Your task to perform on an android device: install app "Life360: Find Family & Friends" Image 0: 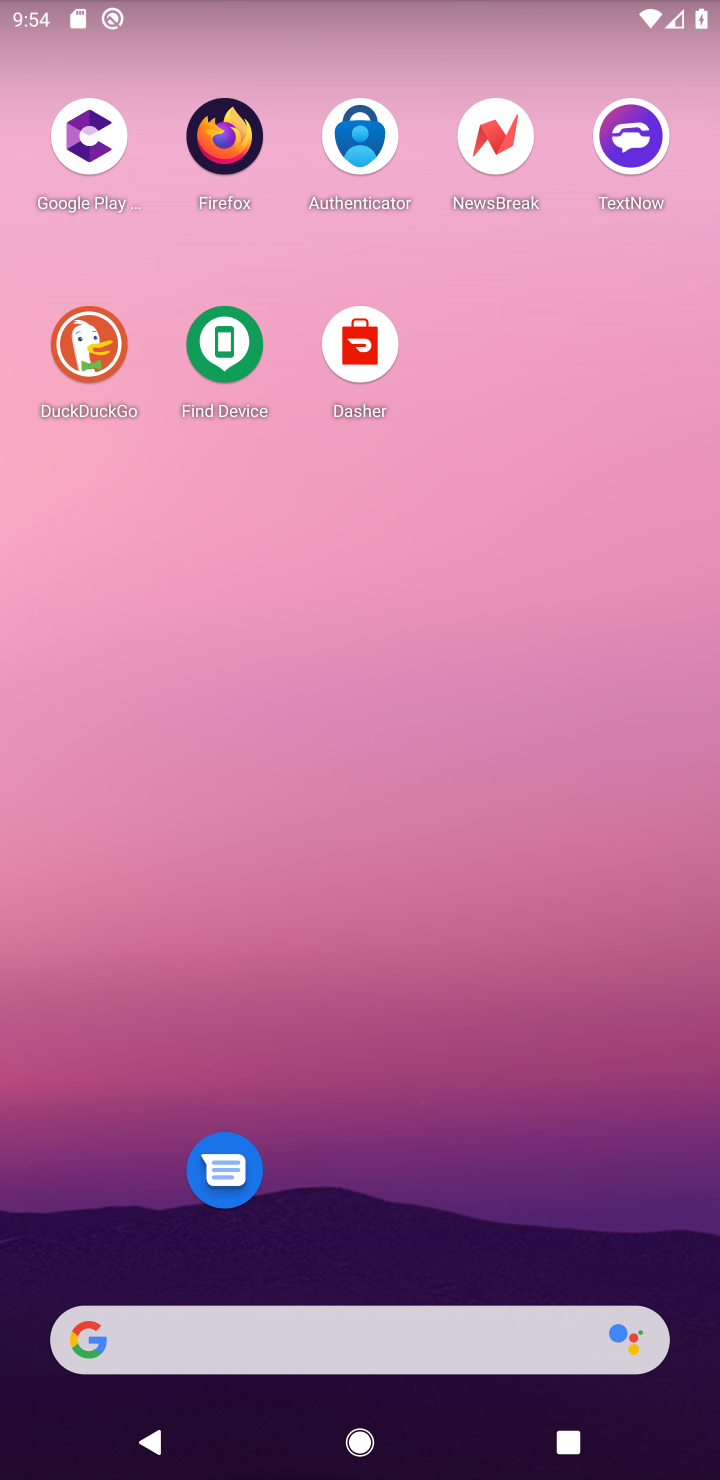
Step 0: drag from (415, 1272) to (362, 108)
Your task to perform on an android device: install app "Life360: Find Family & Friends" Image 1: 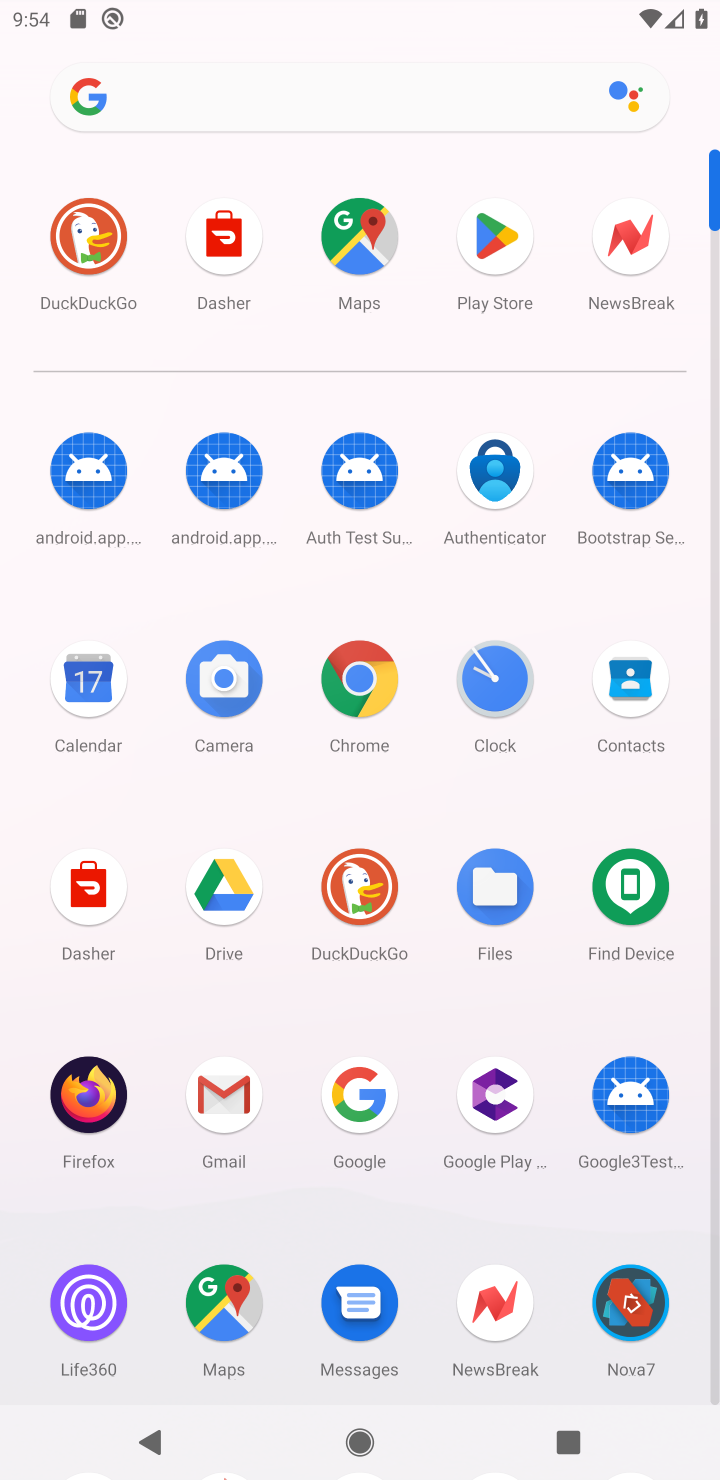
Step 1: click (509, 241)
Your task to perform on an android device: install app "Life360: Find Family & Friends" Image 2: 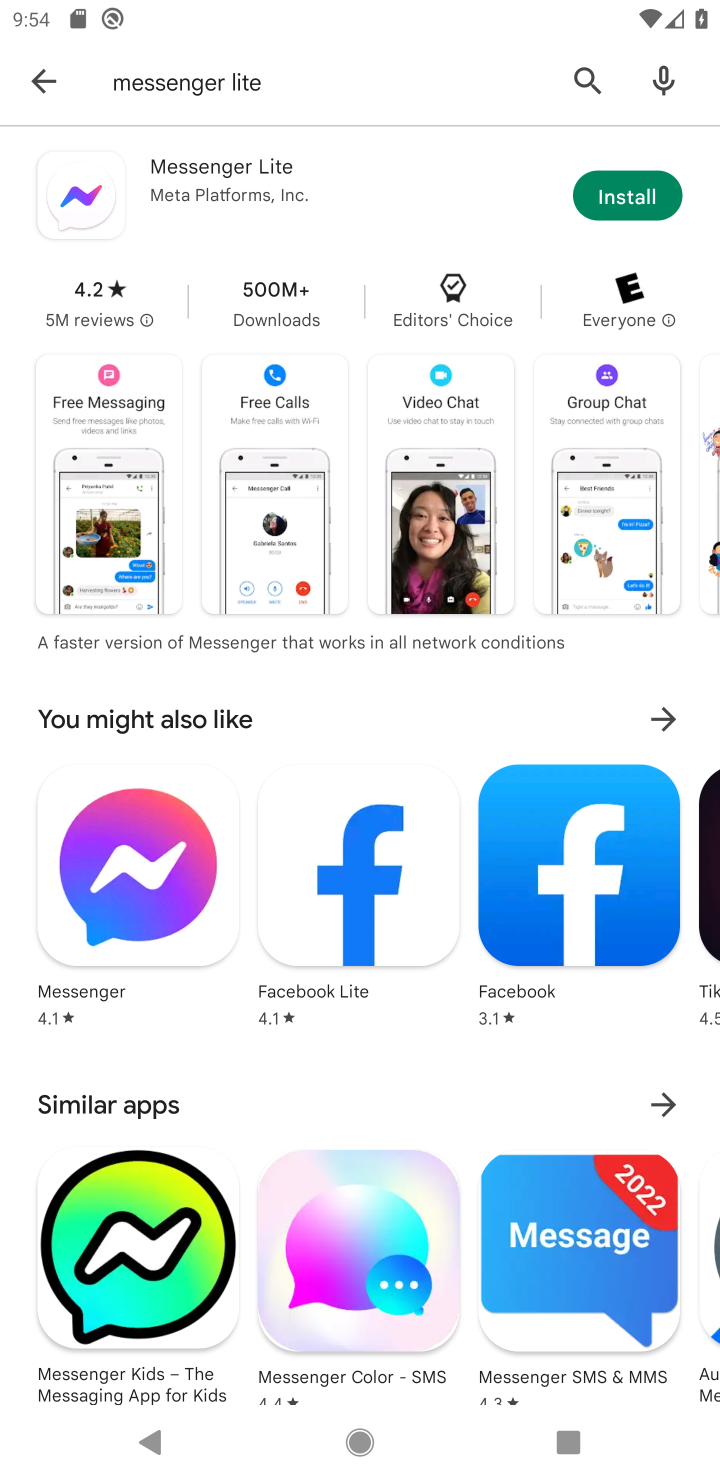
Step 2: click (17, 71)
Your task to perform on an android device: install app "Life360: Find Family & Friends" Image 3: 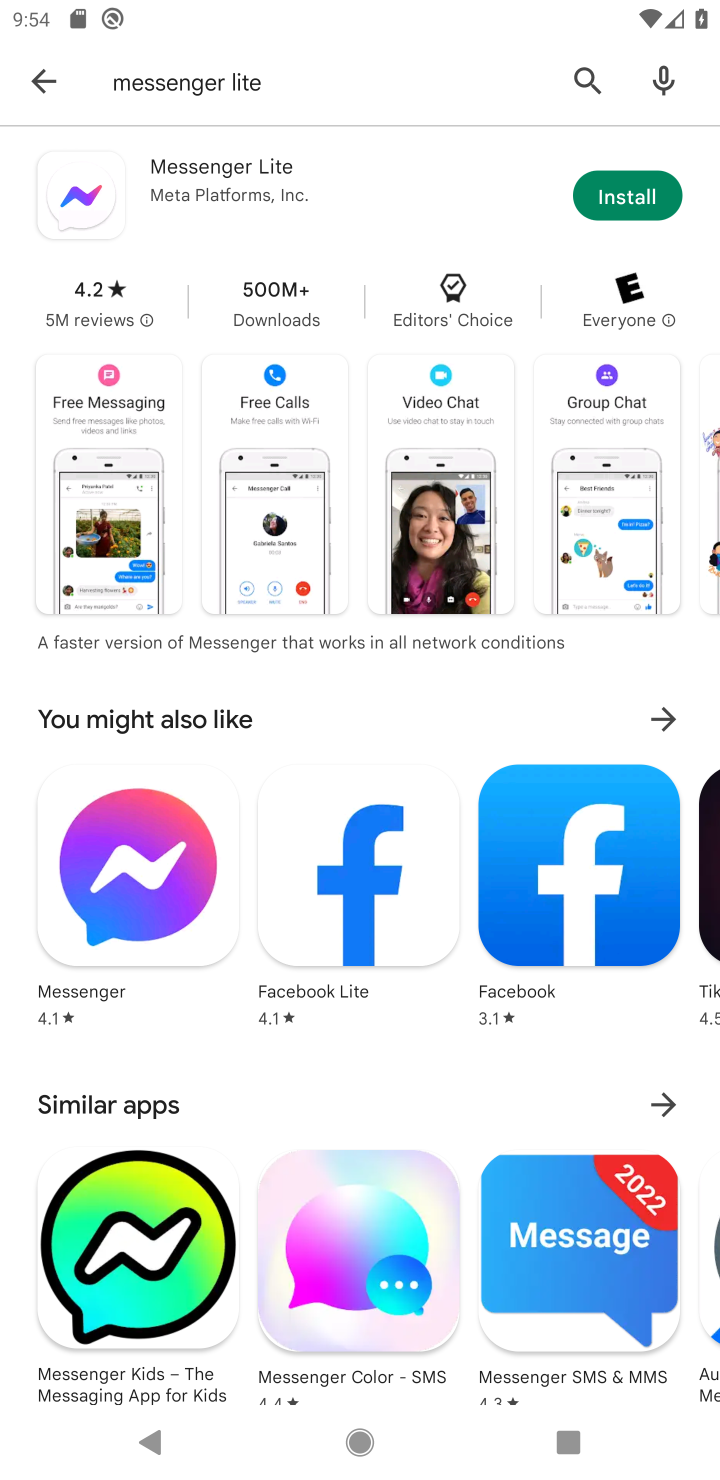
Step 3: click (18, 93)
Your task to perform on an android device: install app "Life360: Find Family & Friends" Image 4: 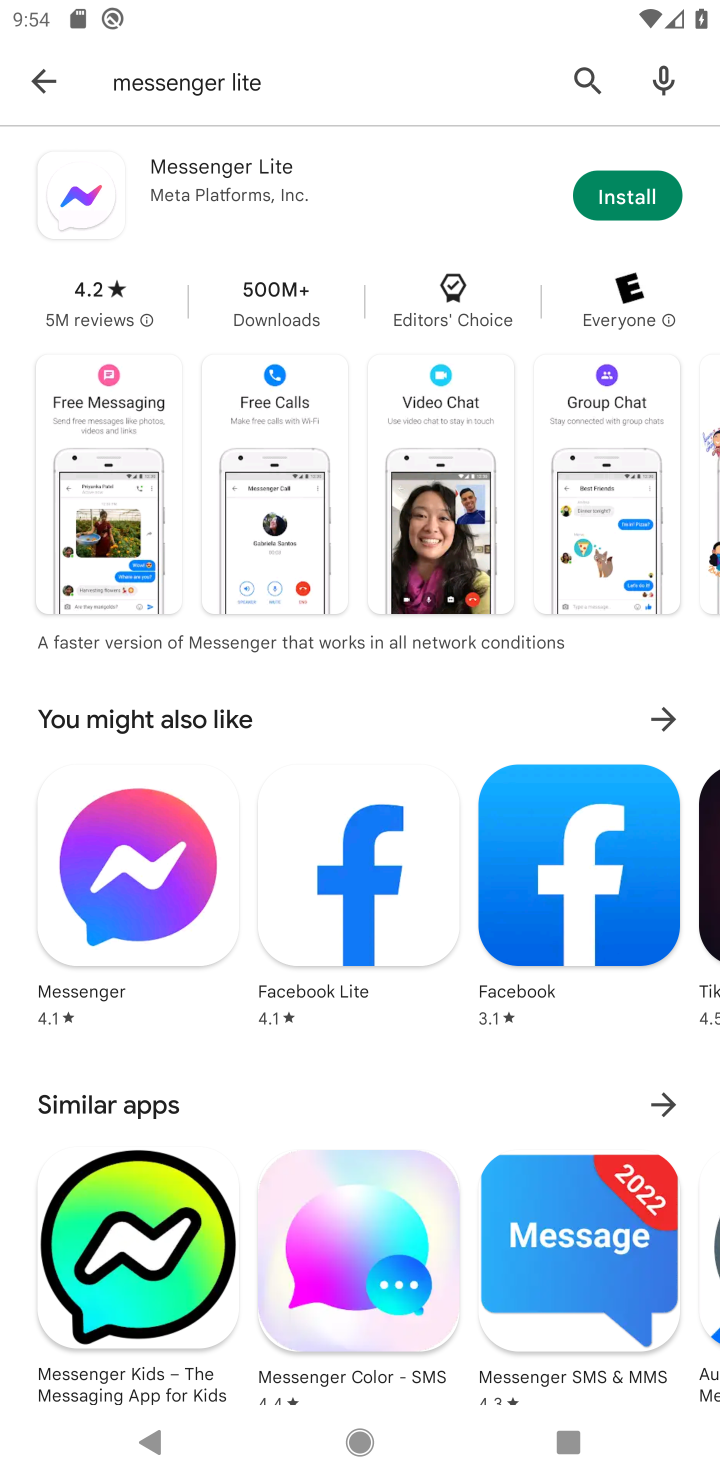
Step 4: click (51, 80)
Your task to perform on an android device: install app "Life360: Find Family & Friends" Image 5: 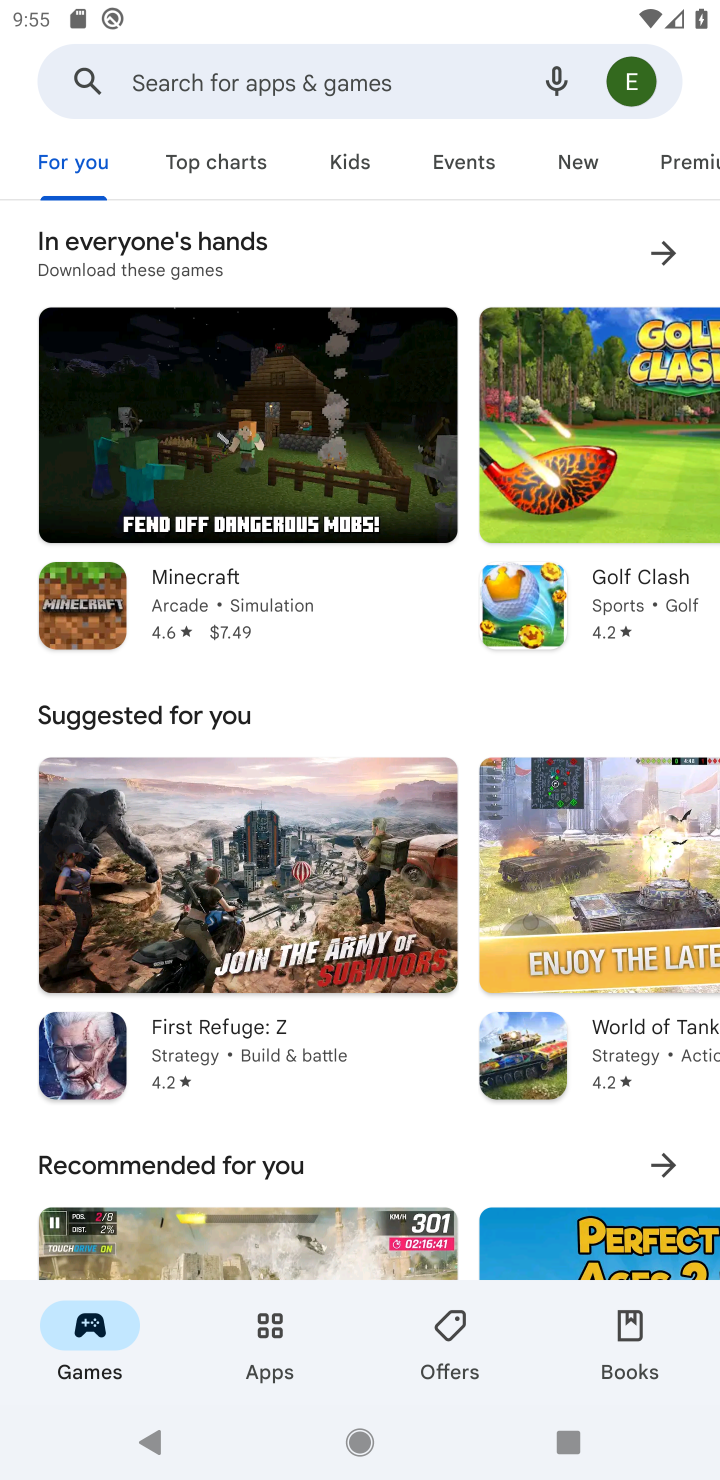
Step 5: click (172, 89)
Your task to perform on an android device: install app "Life360: Find Family & Friends" Image 6: 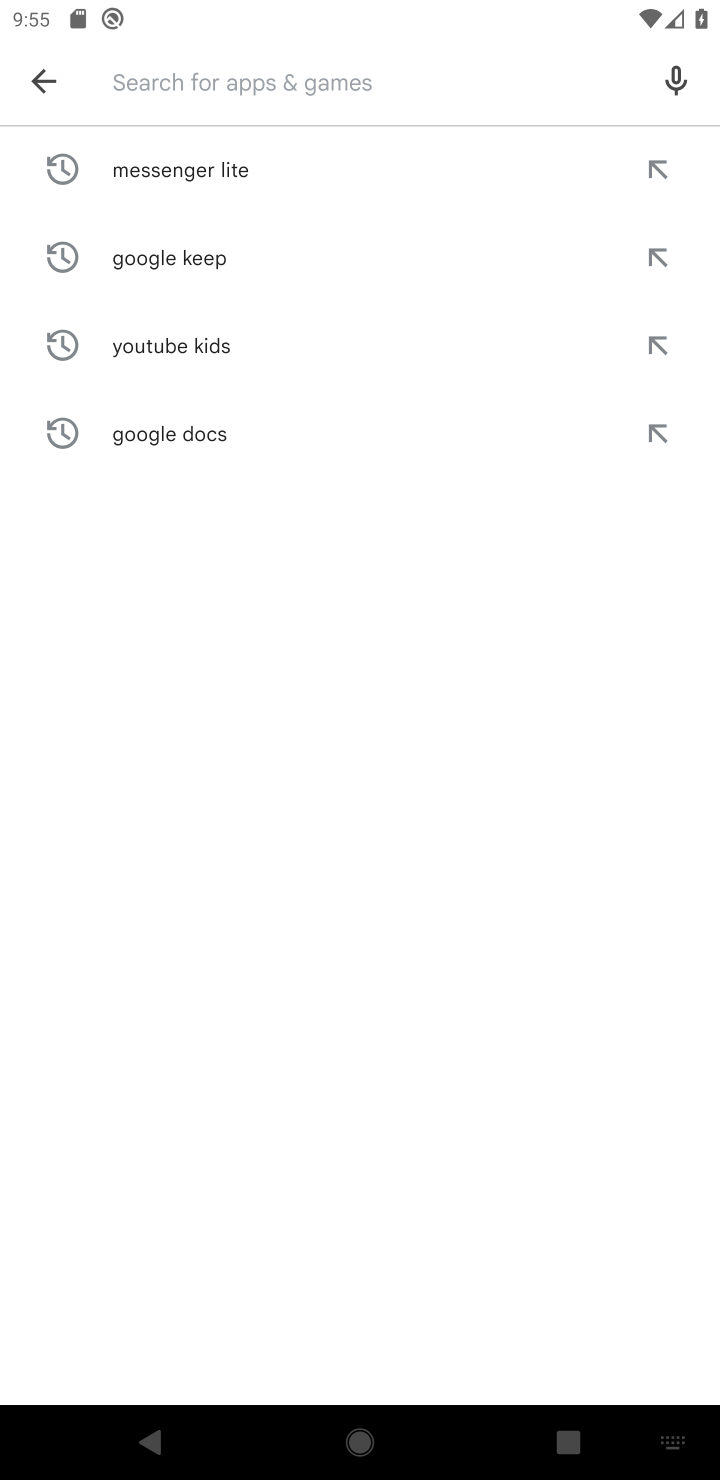
Step 6: type "Life360: Find Family & Friends"
Your task to perform on an android device: install app "Life360: Find Family & Friends" Image 7: 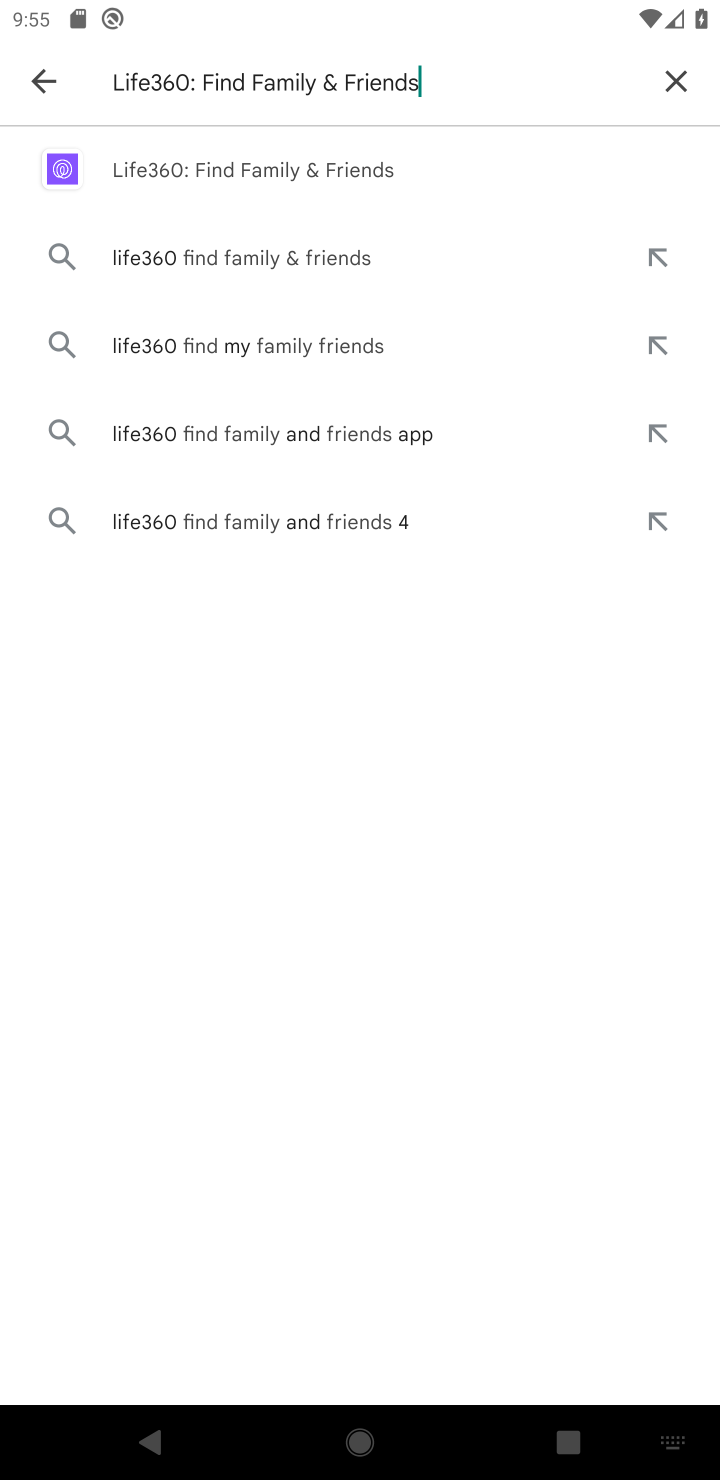
Step 7: type ""
Your task to perform on an android device: install app "Life360: Find Family & Friends" Image 8: 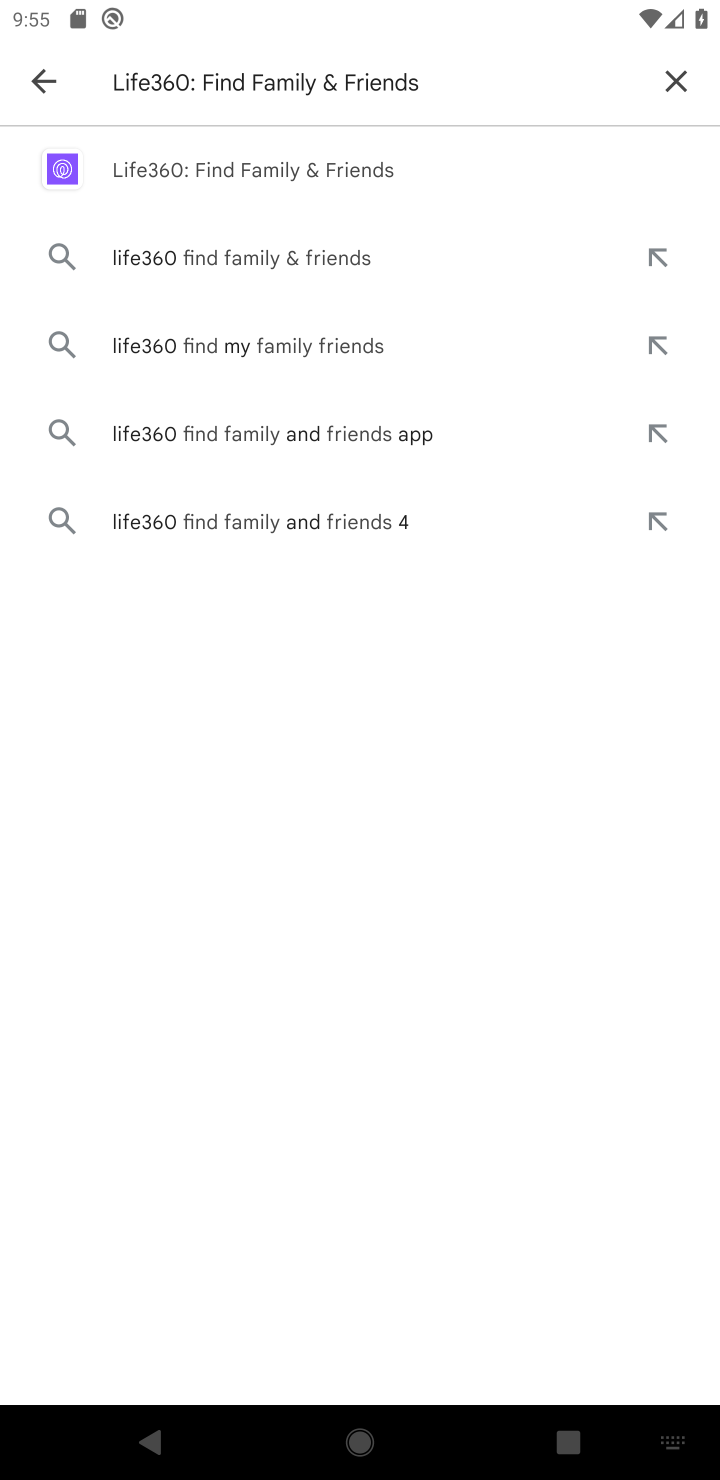
Step 8: click (221, 173)
Your task to perform on an android device: install app "Life360: Find Family & Friends" Image 9: 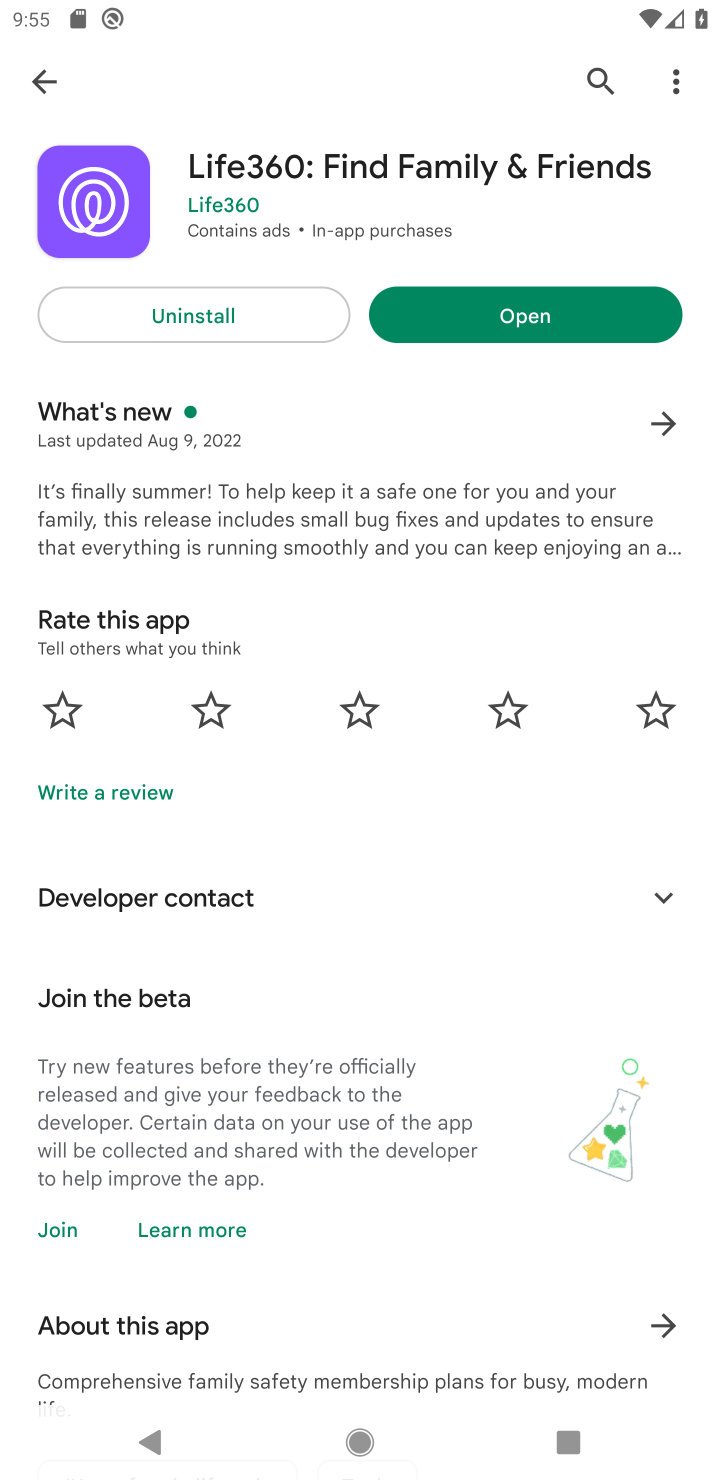
Step 9: click (405, 316)
Your task to perform on an android device: install app "Life360: Find Family & Friends" Image 10: 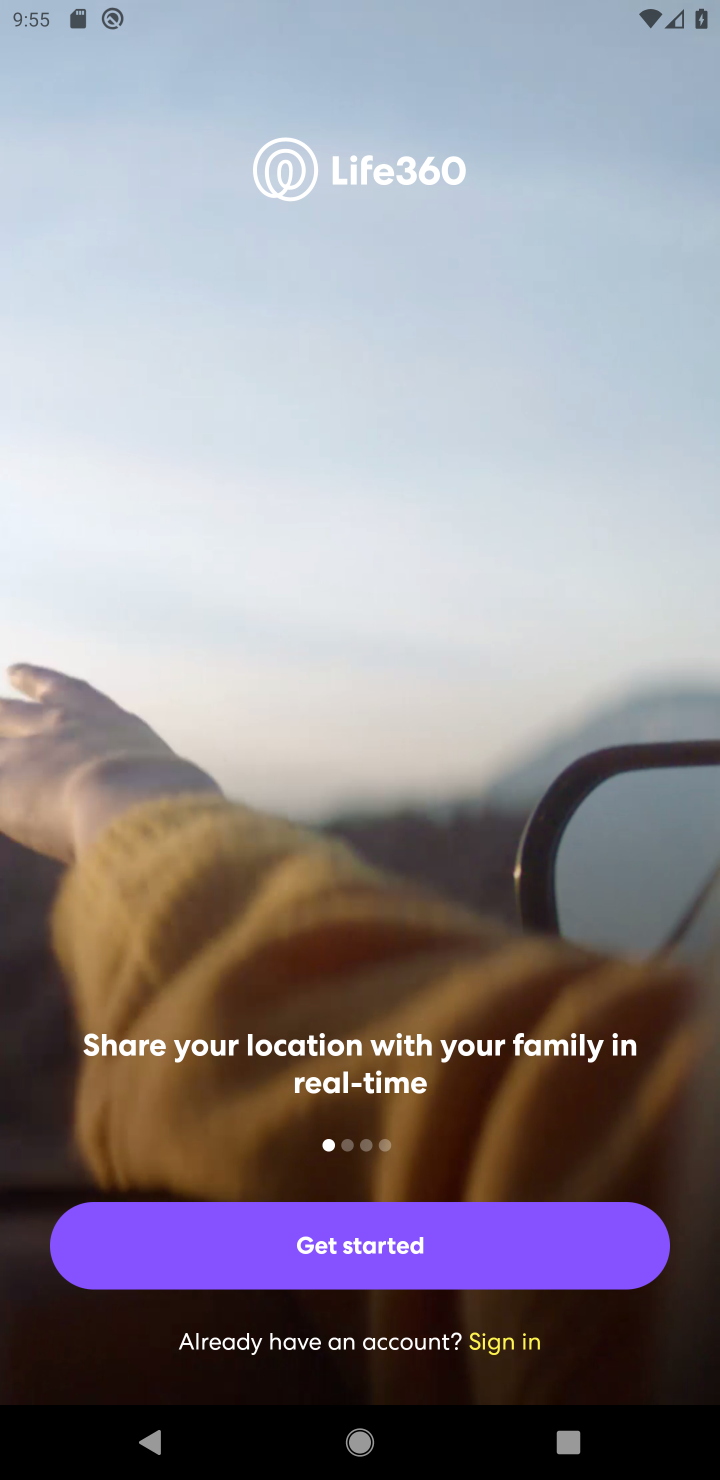
Step 10: task complete